Your task to perform on an android device: visit the assistant section in the google photos Image 0: 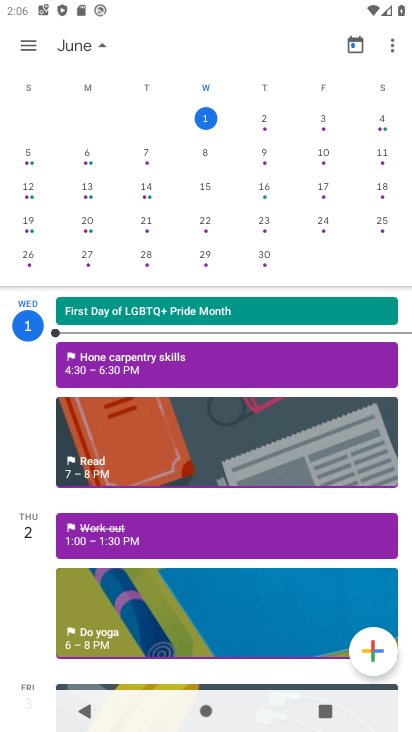
Step 0: press home button
Your task to perform on an android device: visit the assistant section in the google photos Image 1: 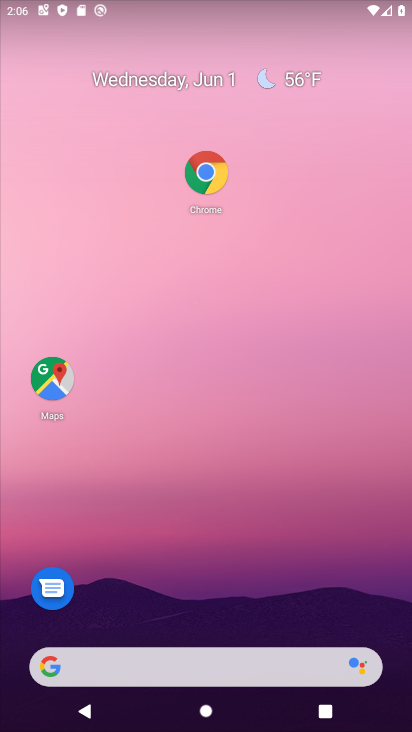
Step 1: drag from (226, 573) to (267, 56)
Your task to perform on an android device: visit the assistant section in the google photos Image 2: 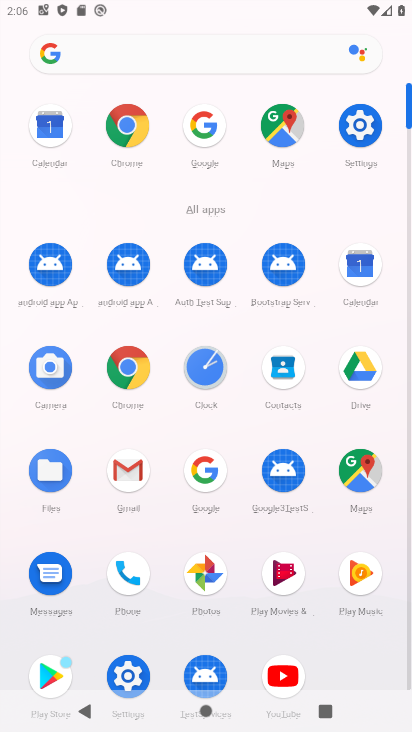
Step 2: click (213, 573)
Your task to perform on an android device: visit the assistant section in the google photos Image 3: 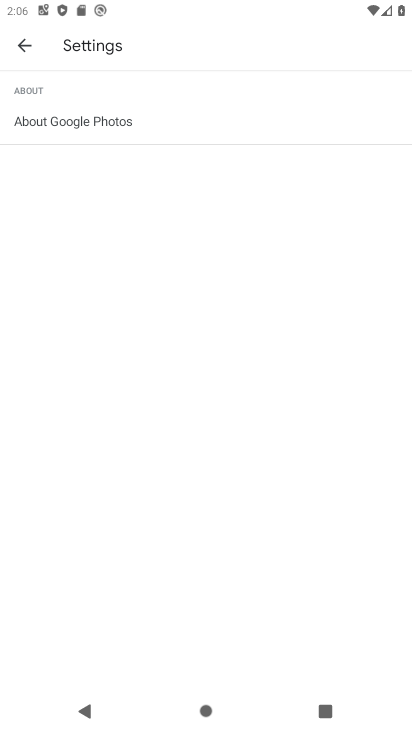
Step 3: press back button
Your task to perform on an android device: visit the assistant section in the google photos Image 4: 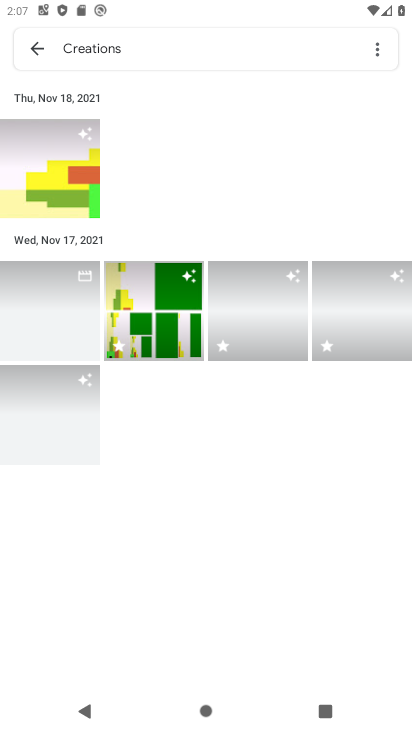
Step 4: press back button
Your task to perform on an android device: visit the assistant section in the google photos Image 5: 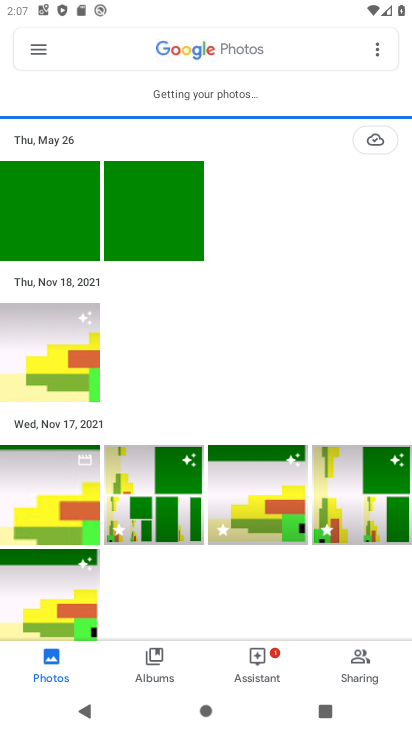
Step 5: click (253, 661)
Your task to perform on an android device: visit the assistant section in the google photos Image 6: 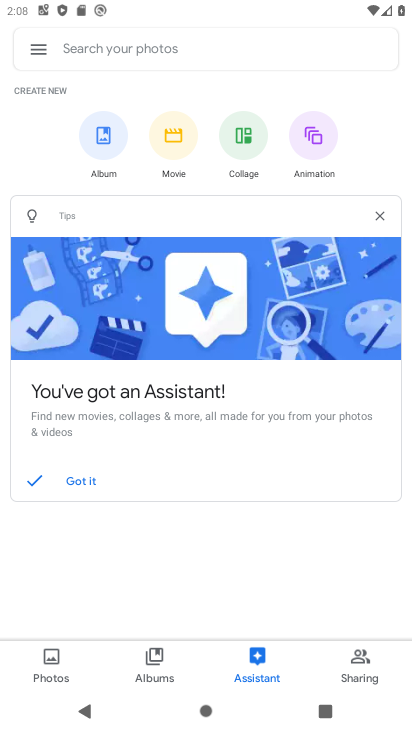
Step 6: task complete